Your task to perform on an android device: add a contact in the contacts app Image 0: 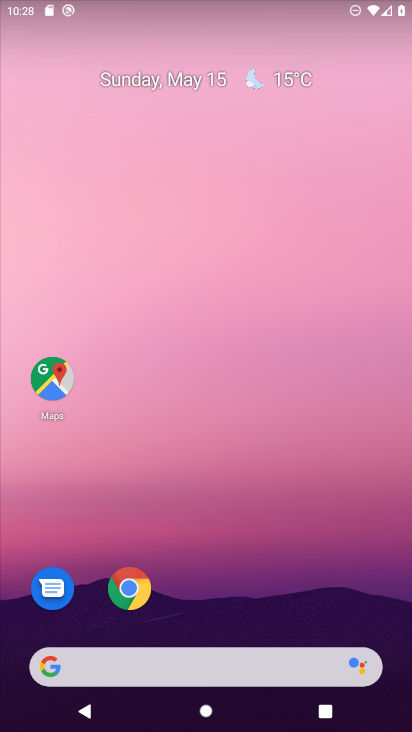
Step 0: drag from (204, 615) to (230, 213)
Your task to perform on an android device: add a contact in the contacts app Image 1: 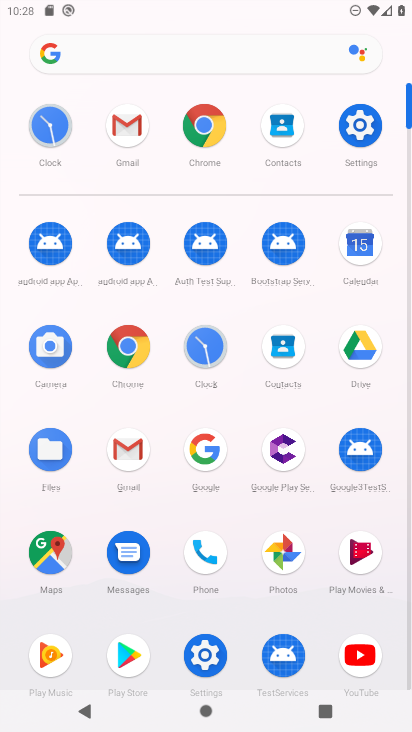
Step 1: click (289, 351)
Your task to perform on an android device: add a contact in the contacts app Image 2: 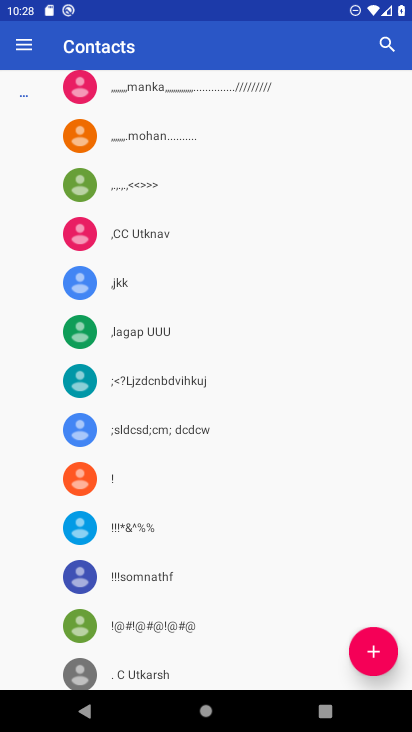
Step 2: click (391, 650)
Your task to perform on an android device: add a contact in the contacts app Image 3: 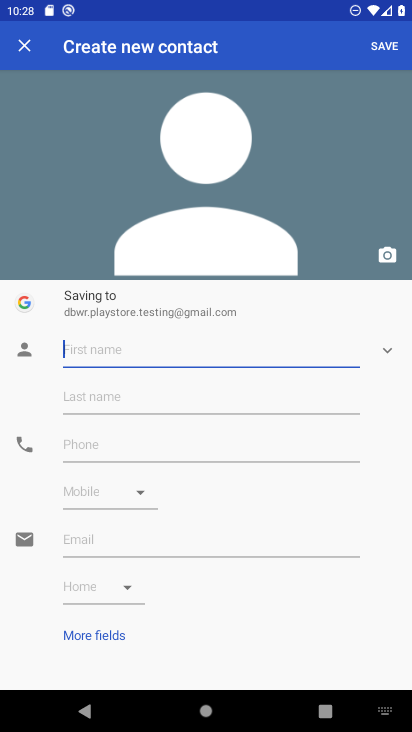
Step 3: type "dave"
Your task to perform on an android device: add a contact in the contacts app Image 4: 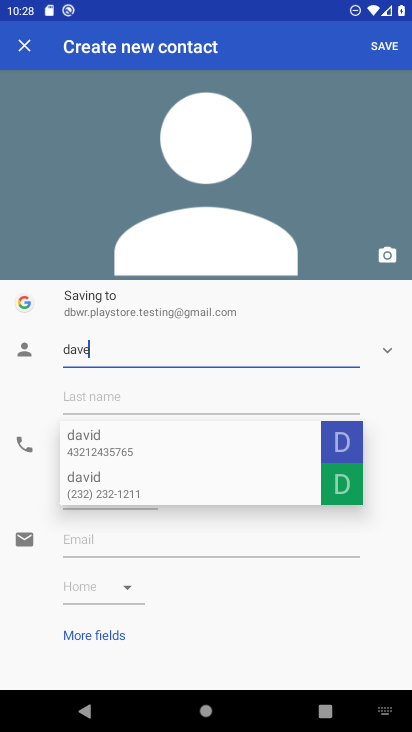
Step 4: click (382, 44)
Your task to perform on an android device: add a contact in the contacts app Image 5: 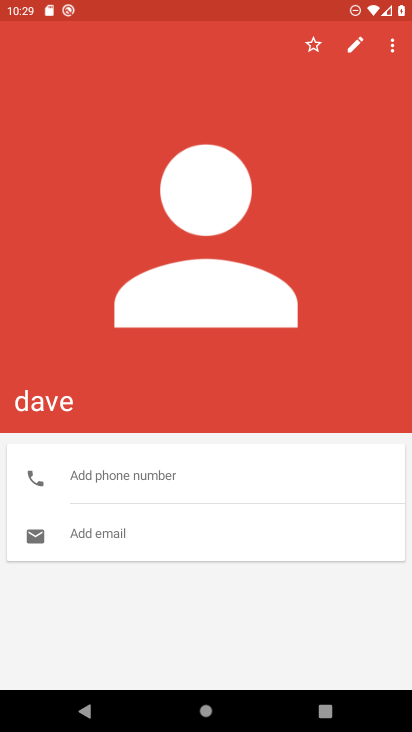
Step 5: task complete